Your task to perform on an android device: toggle airplane mode Image 0: 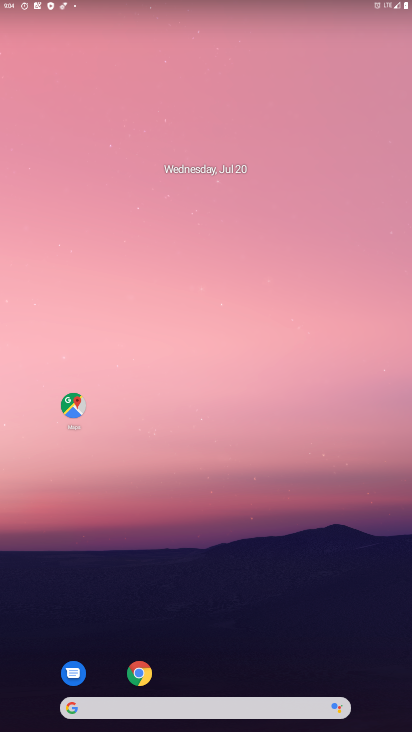
Step 0: drag from (190, 380) to (192, 85)
Your task to perform on an android device: toggle airplane mode Image 1: 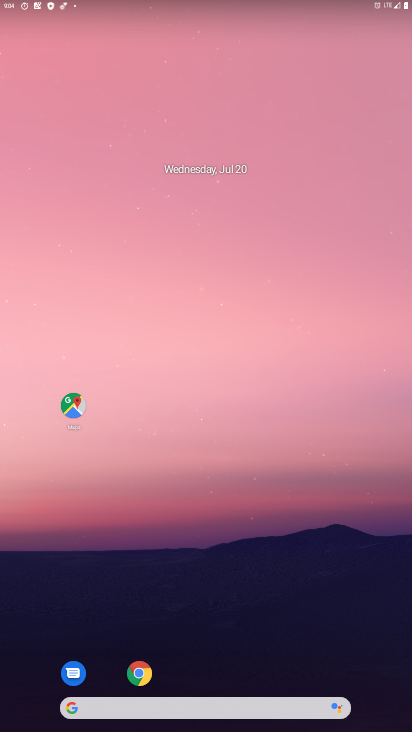
Step 1: drag from (216, 650) to (188, 25)
Your task to perform on an android device: toggle airplane mode Image 2: 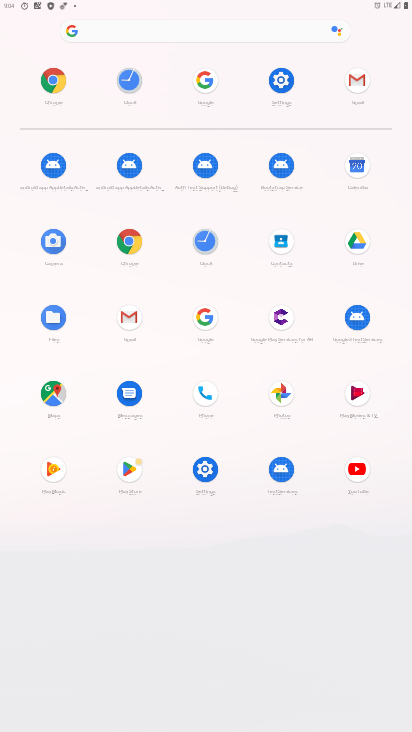
Step 2: click (279, 81)
Your task to perform on an android device: toggle airplane mode Image 3: 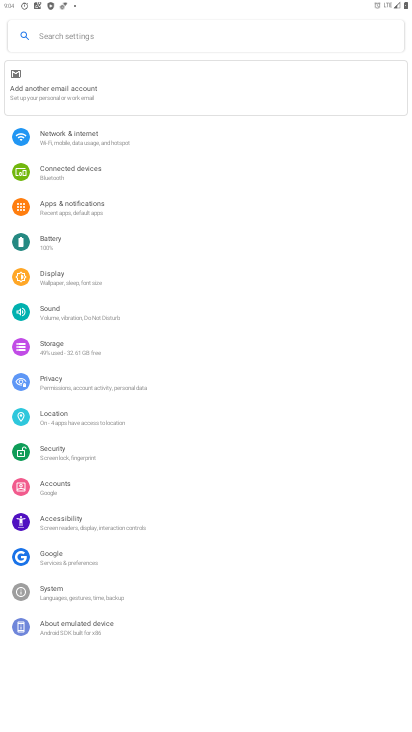
Step 3: click (72, 141)
Your task to perform on an android device: toggle airplane mode Image 4: 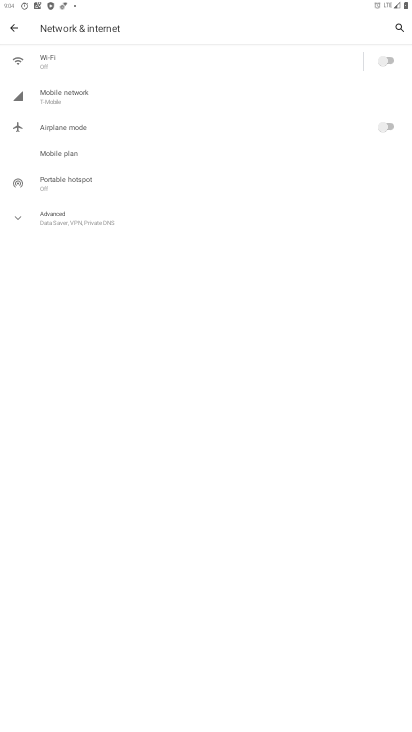
Step 4: click (393, 126)
Your task to perform on an android device: toggle airplane mode Image 5: 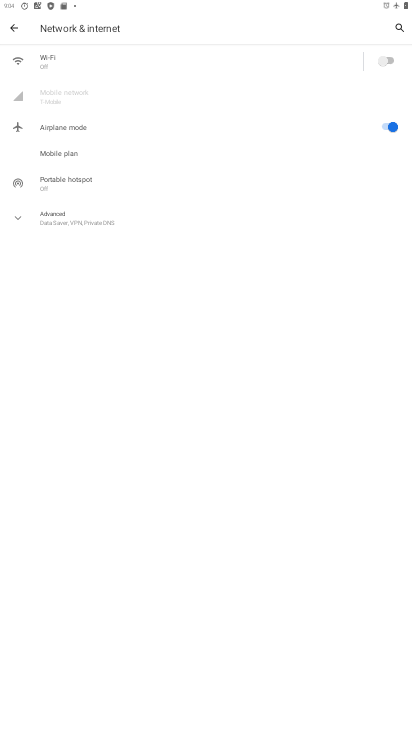
Step 5: task complete